Your task to perform on an android device: Set the phone to "Do not disturb". Image 0: 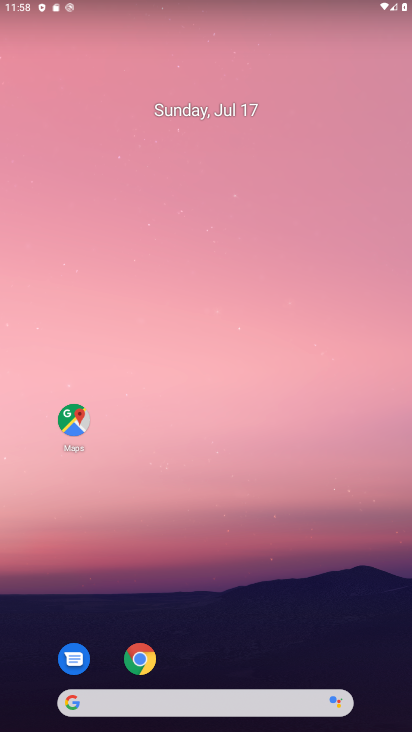
Step 0: drag from (245, 721) to (194, 198)
Your task to perform on an android device: Set the phone to "Do not disturb". Image 1: 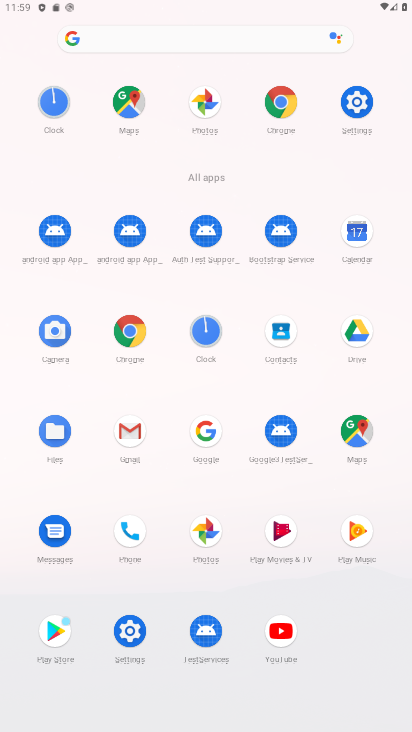
Step 1: click (359, 106)
Your task to perform on an android device: Set the phone to "Do not disturb". Image 2: 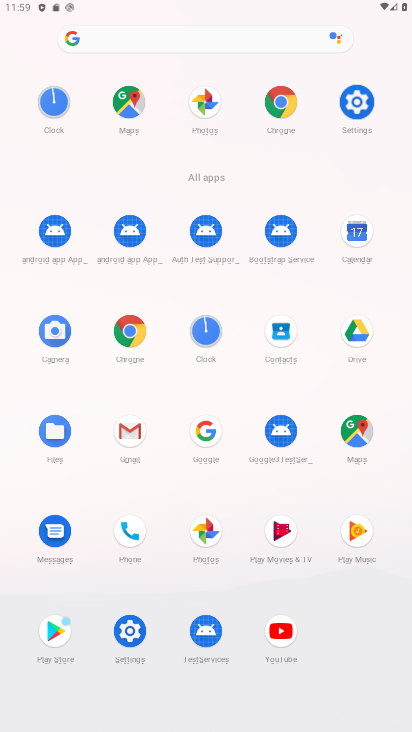
Step 2: click (360, 107)
Your task to perform on an android device: Set the phone to "Do not disturb". Image 3: 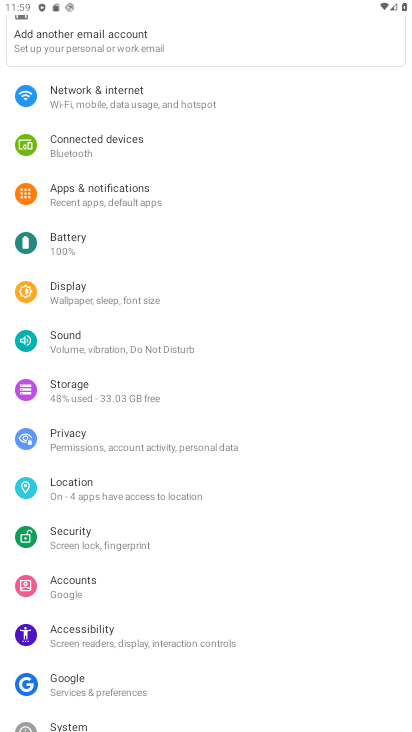
Step 3: click (112, 348)
Your task to perform on an android device: Set the phone to "Do not disturb". Image 4: 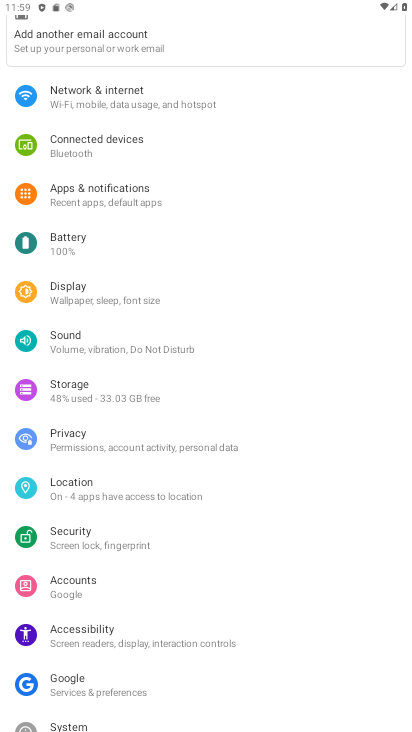
Step 4: click (111, 347)
Your task to perform on an android device: Set the phone to "Do not disturb". Image 5: 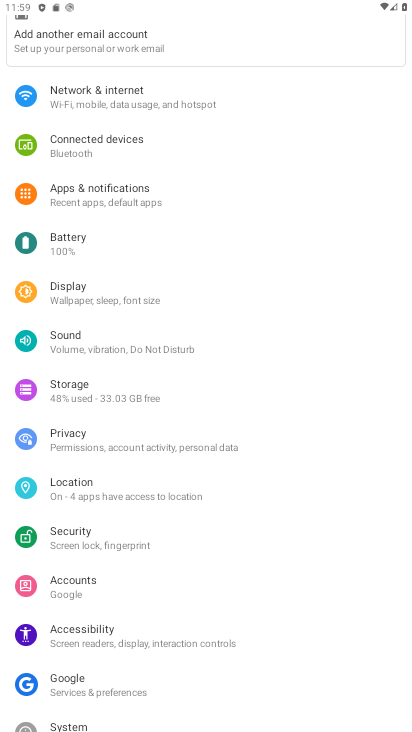
Step 5: click (112, 348)
Your task to perform on an android device: Set the phone to "Do not disturb". Image 6: 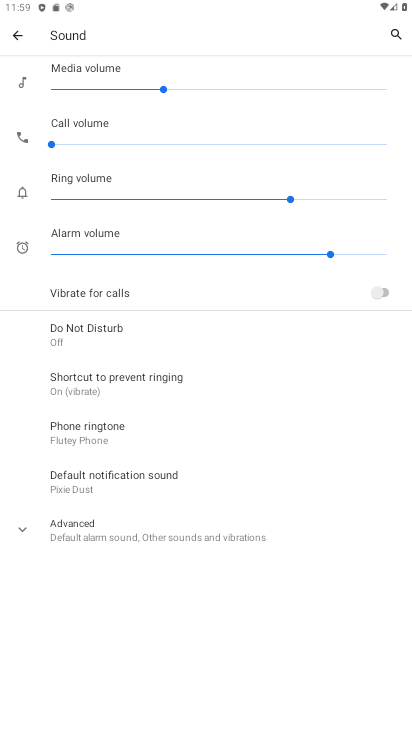
Step 6: click (75, 341)
Your task to perform on an android device: Set the phone to "Do not disturb". Image 7: 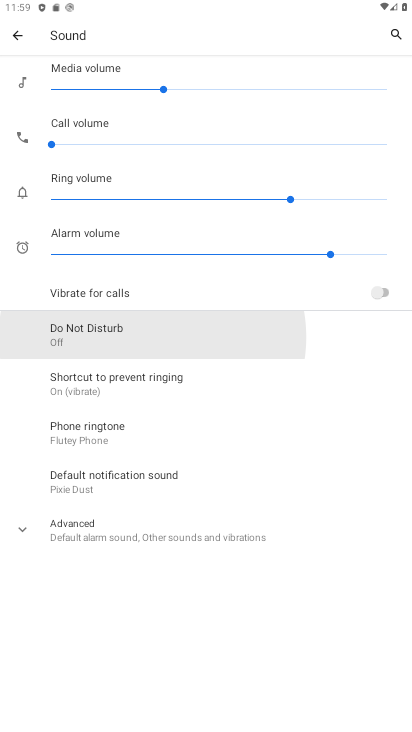
Step 7: click (82, 347)
Your task to perform on an android device: Set the phone to "Do not disturb". Image 8: 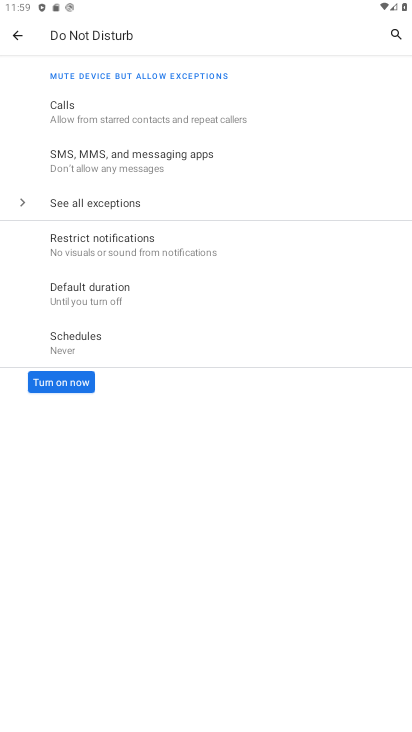
Step 8: click (71, 377)
Your task to perform on an android device: Set the phone to "Do not disturb". Image 9: 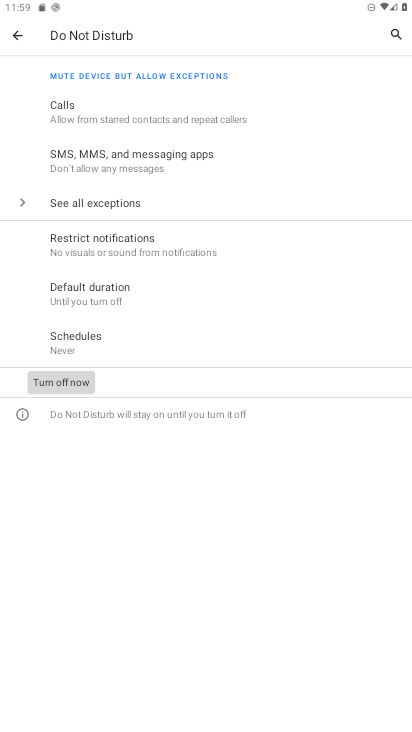
Step 9: task complete